Your task to perform on an android device: When is my next appointment? Image 0: 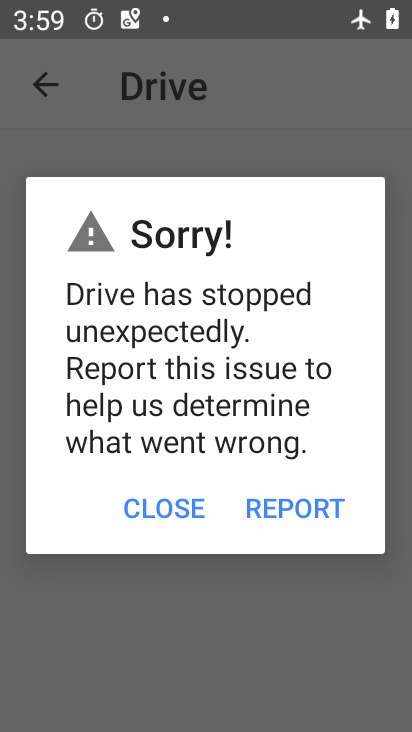
Step 0: press home button
Your task to perform on an android device: When is my next appointment? Image 1: 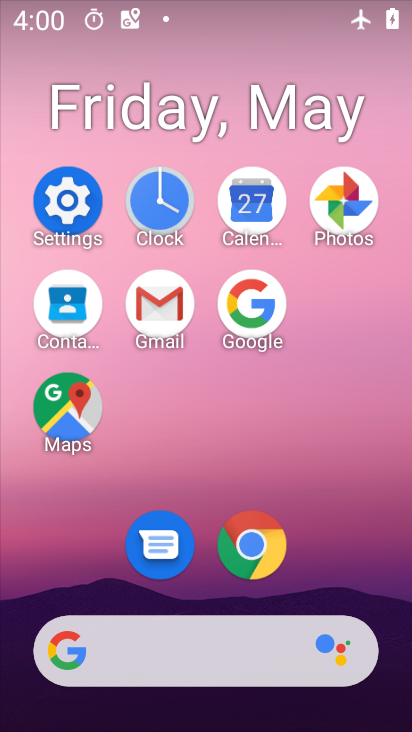
Step 1: click (246, 205)
Your task to perform on an android device: When is my next appointment? Image 2: 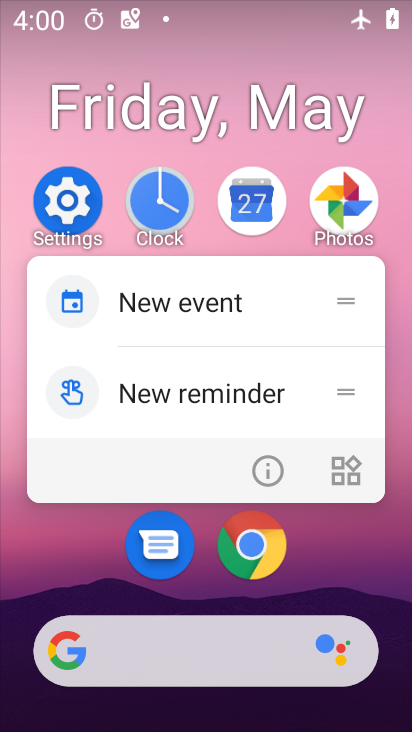
Step 2: click (246, 205)
Your task to perform on an android device: When is my next appointment? Image 3: 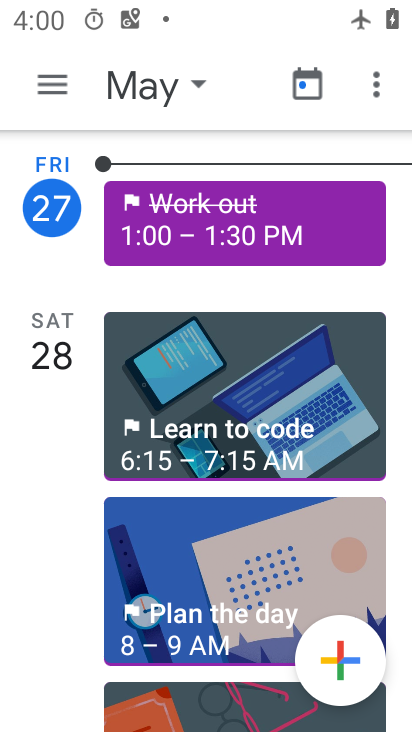
Step 3: click (46, 75)
Your task to perform on an android device: When is my next appointment? Image 4: 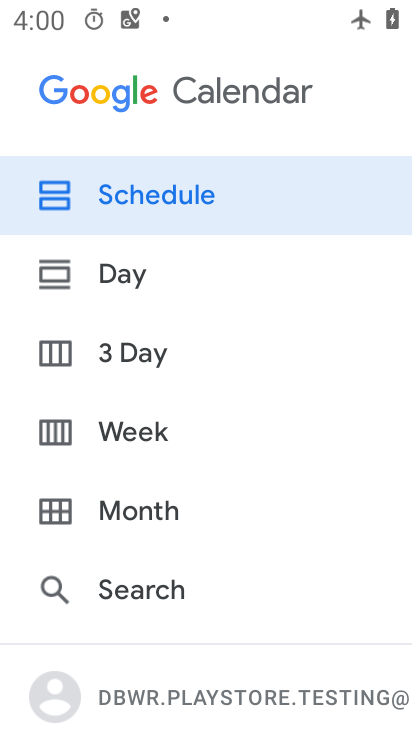
Step 4: click (161, 267)
Your task to perform on an android device: When is my next appointment? Image 5: 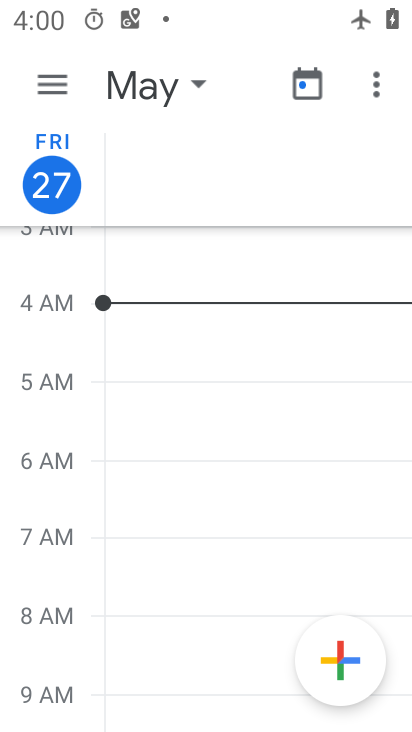
Step 5: task complete